Your task to perform on an android device: toggle pop-ups in chrome Image 0: 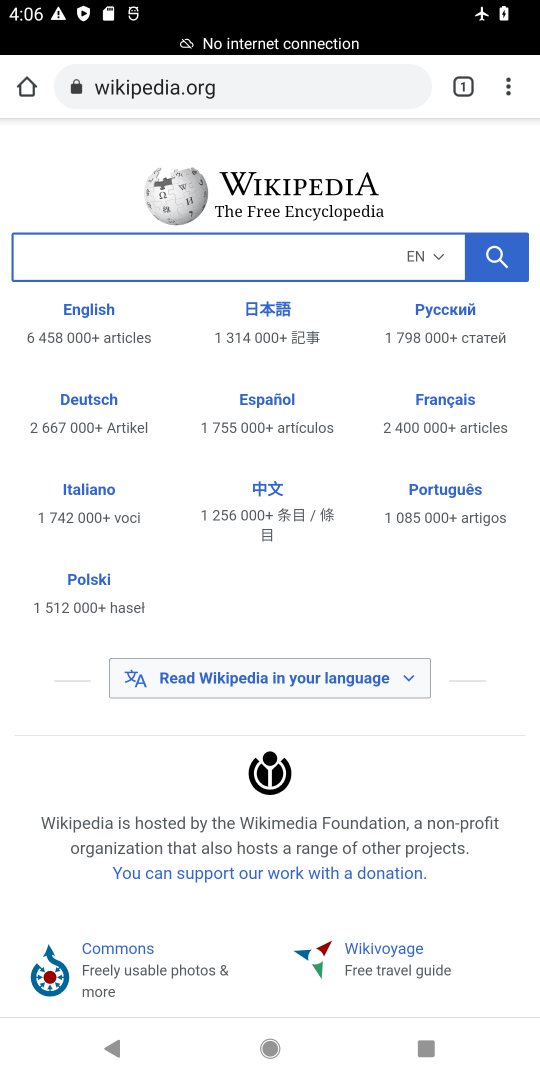
Step 0: press home button
Your task to perform on an android device: toggle pop-ups in chrome Image 1: 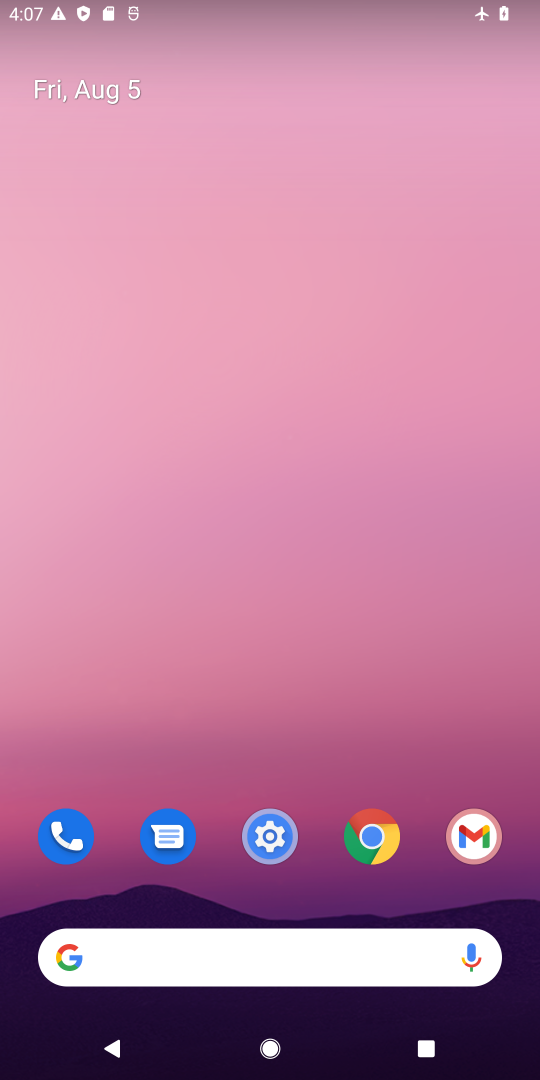
Step 1: drag from (277, 701) to (411, 0)
Your task to perform on an android device: toggle pop-ups in chrome Image 2: 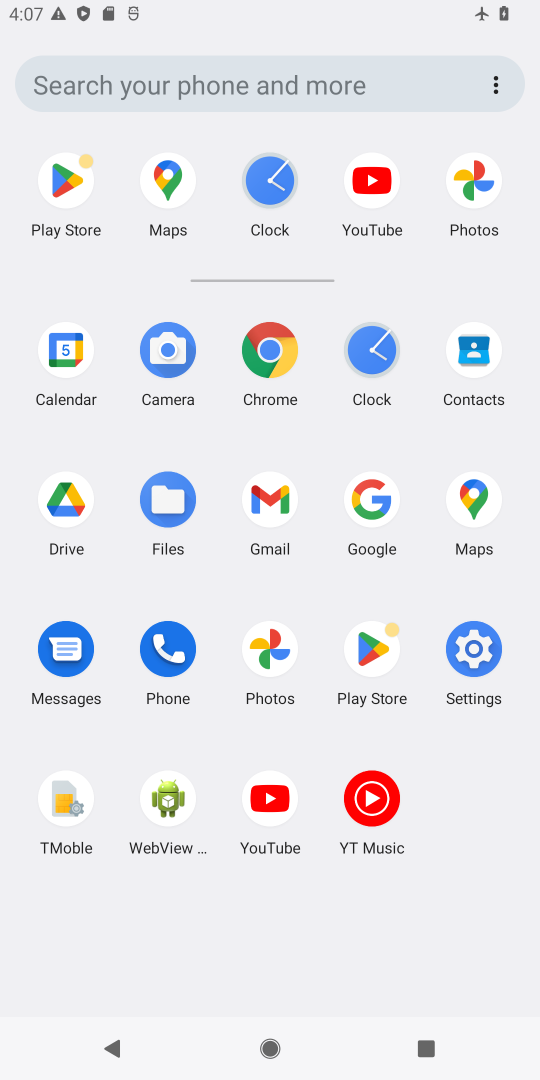
Step 2: click (259, 354)
Your task to perform on an android device: toggle pop-ups in chrome Image 3: 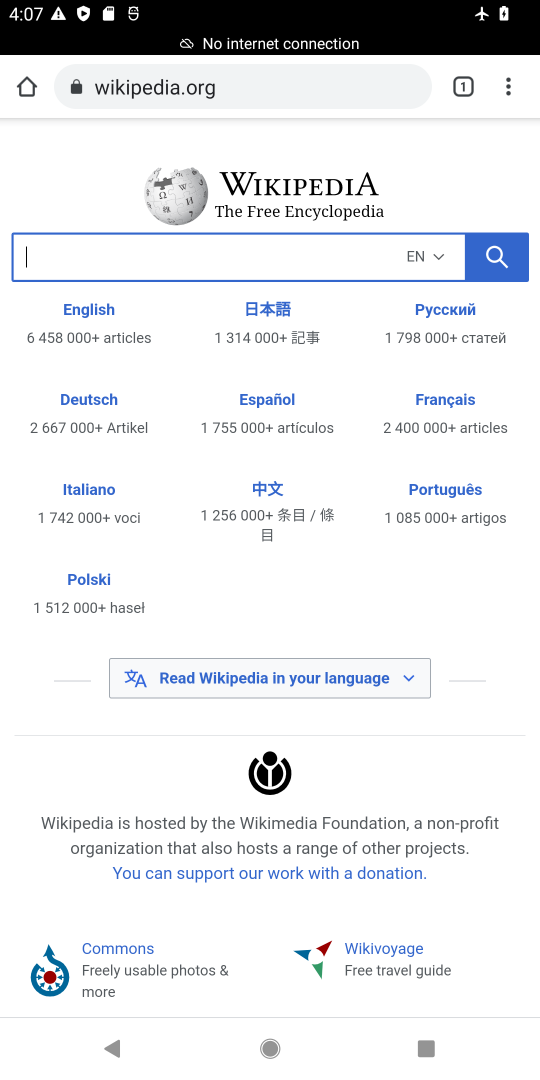
Step 3: drag from (504, 83) to (379, 787)
Your task to perform on an android device: toggle pop-ups in chrome Image 4: 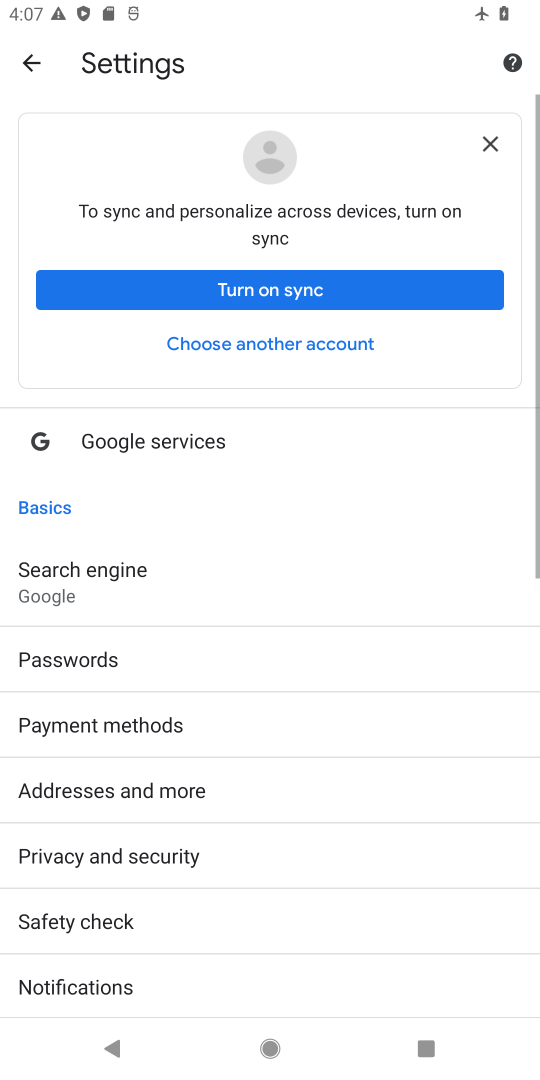
Step 4: drag from (133, 892) to (323, 206)
Your task to perform on an android device: toggle pop-ups in chrome Image 5: 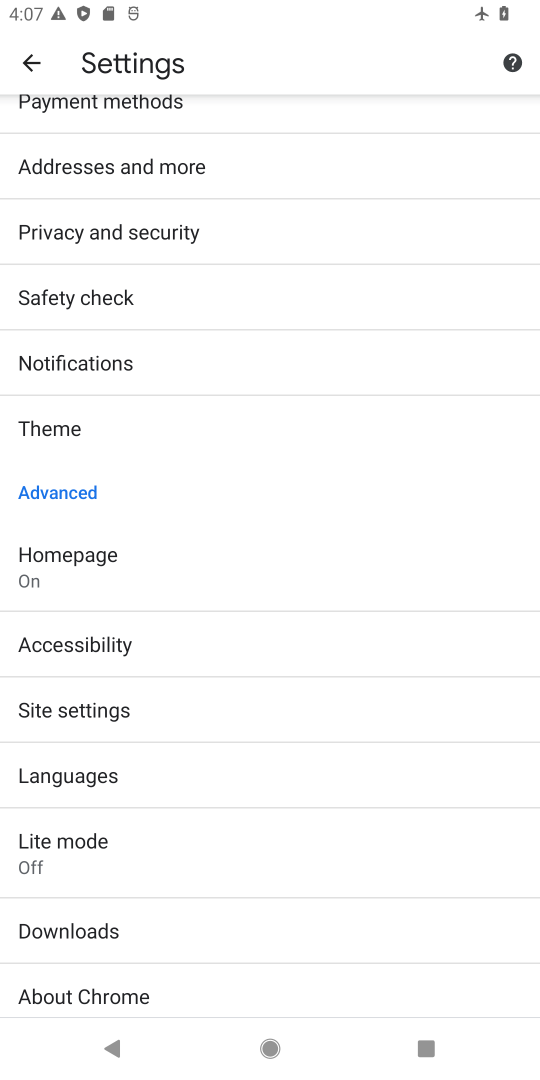
Step 5: click (155, 714)
Your task to perform on an android device: toggle pop-ups in chrome Image 6: 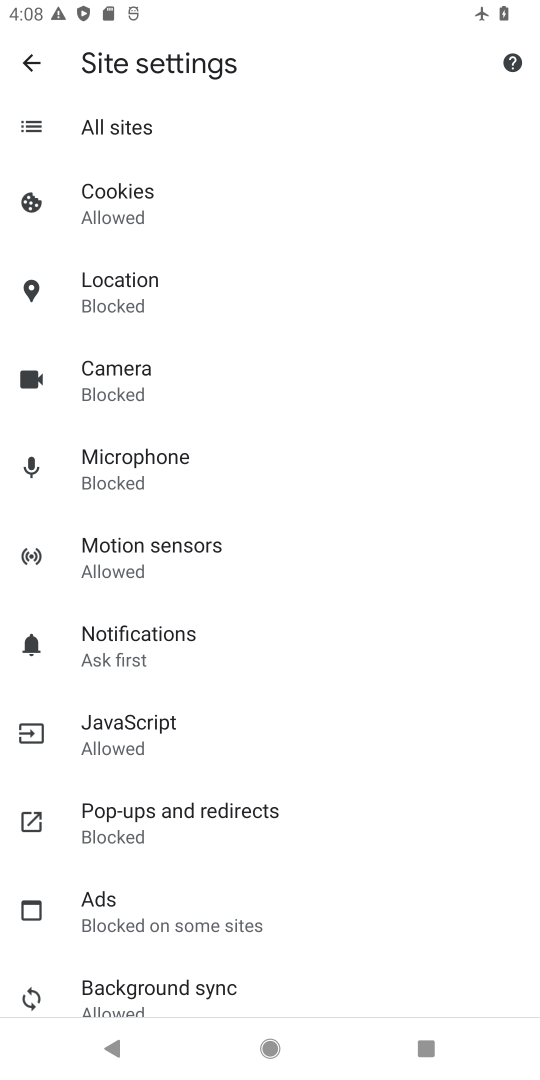
Step 6: drag from (222, 782) to (424, 156)
Your task to perform on an android device: toggle pop-ups in chrome Image 7: 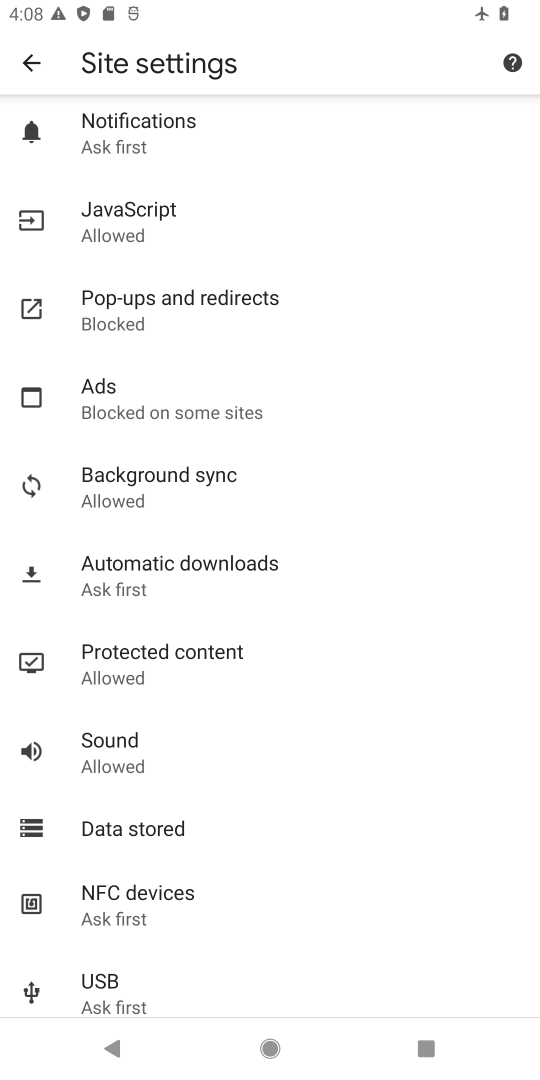
Step 7: drag from (247, 422) to (358, 1073)
Your task to perform on an android device: toggle pop-ups in chrome Image 8: 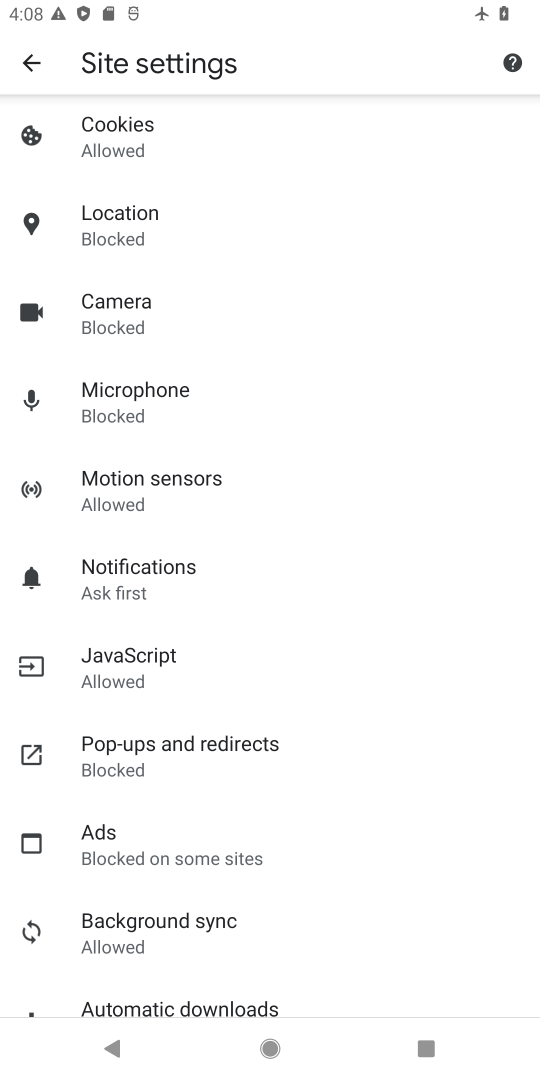
Step 8: drag from (275, 339) to (322, 1014)
Your task to perform on an android device: toggle pop-ups in chrome Image 9: 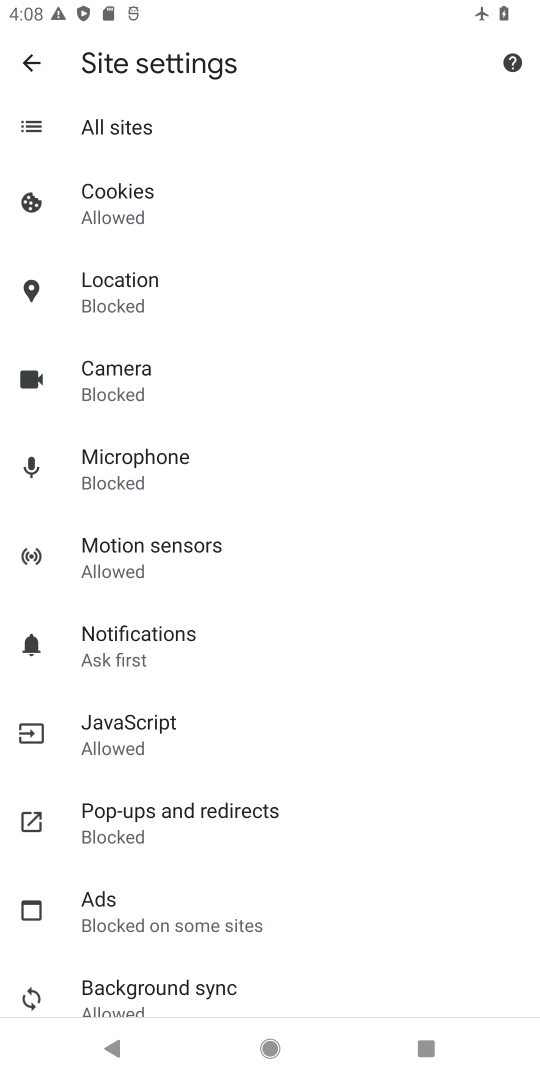
Step 9: drag from (319, 845) to (443, 243)
Your task to perform on an android device: toggle pop-ups in chrome Image 10: 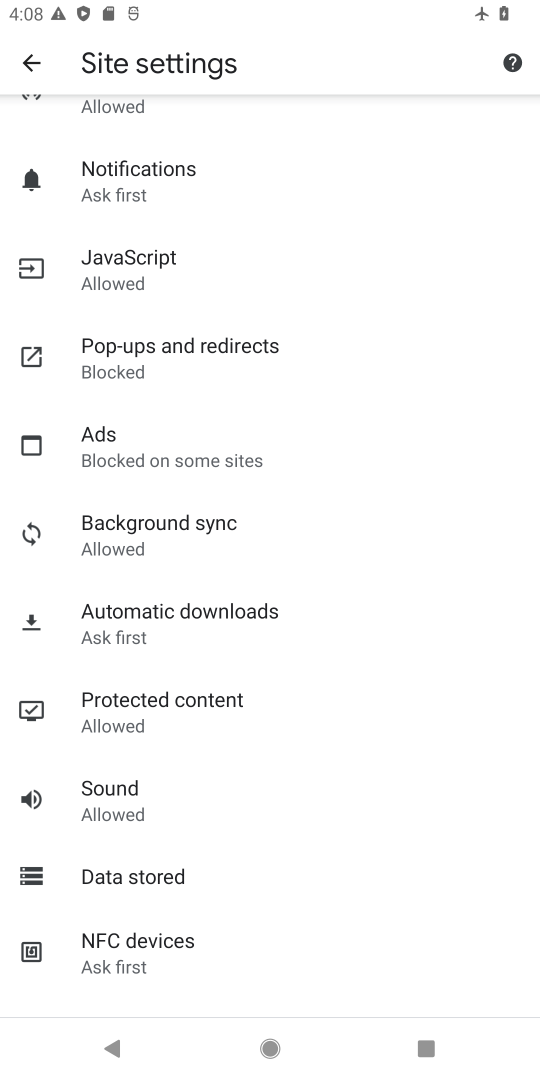
Step 10: click (203, 366)
Your task to perform on an android device: toggle pop-ups in chrome Image 11: 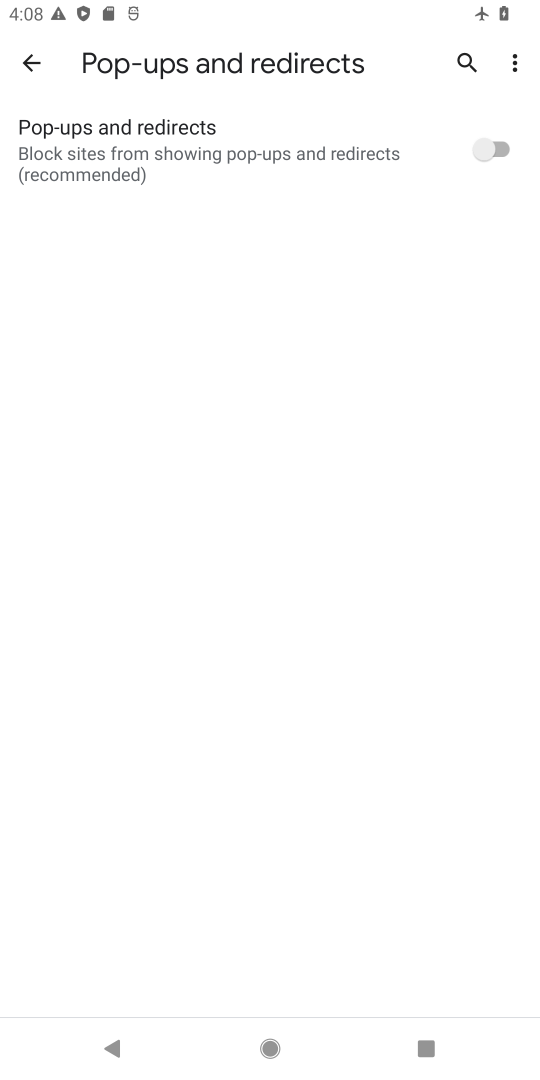
Step 11: click (499, 151)
Your task to perform on an android device: toggle pop-ups in chrome Image 12: 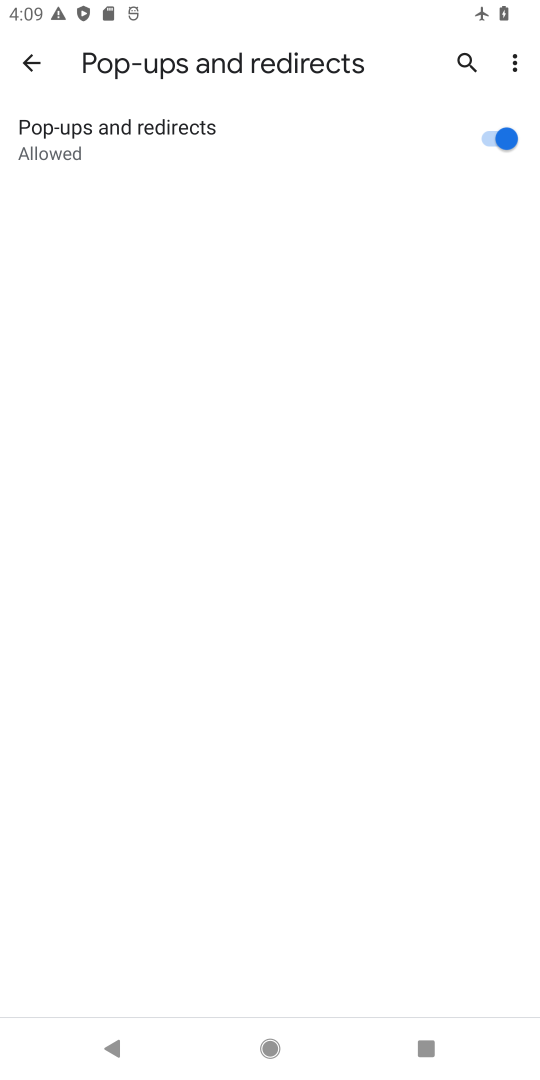
Step 12: task complete